Your task to perform on an android device: Open privacy settings Image 0: 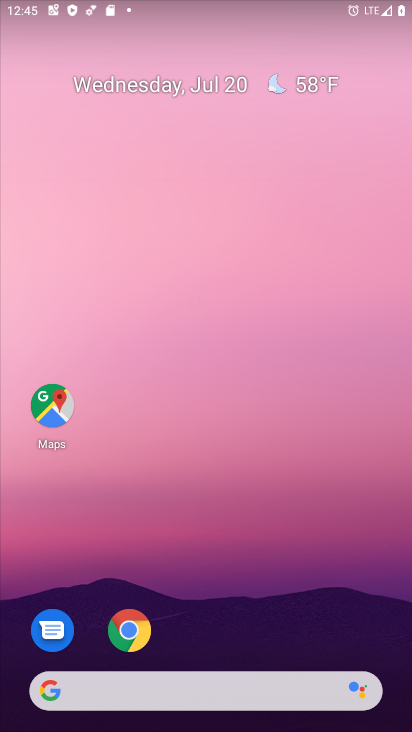
Step 0: drag from (260, 669) to (276, 252)
Your task to perform on an android device: Open privacy settings Image 1: 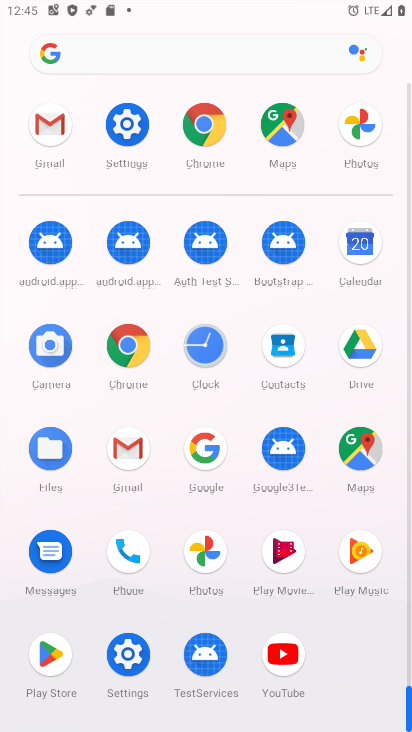
Step 1: click (126, 129)
Your task to perform on an android device: Open privacy settings Image 2: 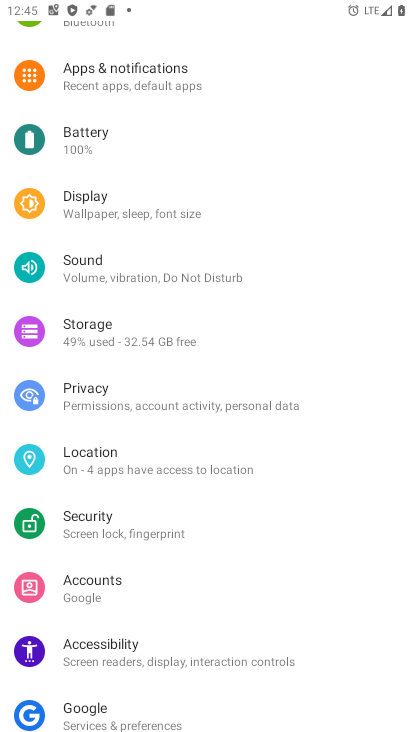
Step 2: drag from (147, 428) to (169, 229)
Your task to perform on an android device: Open privacy settings Image 3: 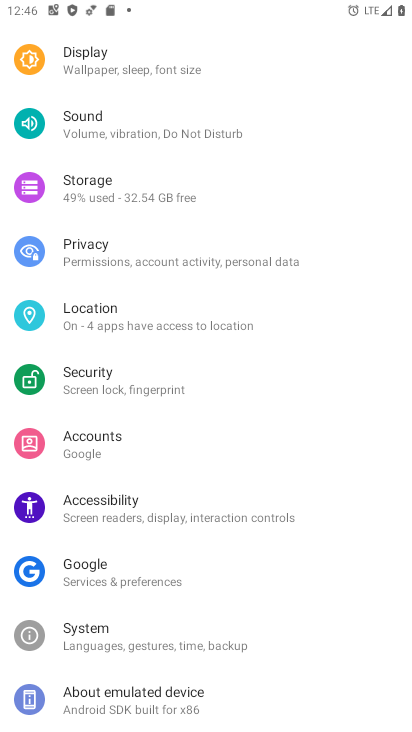
Step 3: click (175, 269)
Your task to perform on an android device: Open privacy settings Image 4: 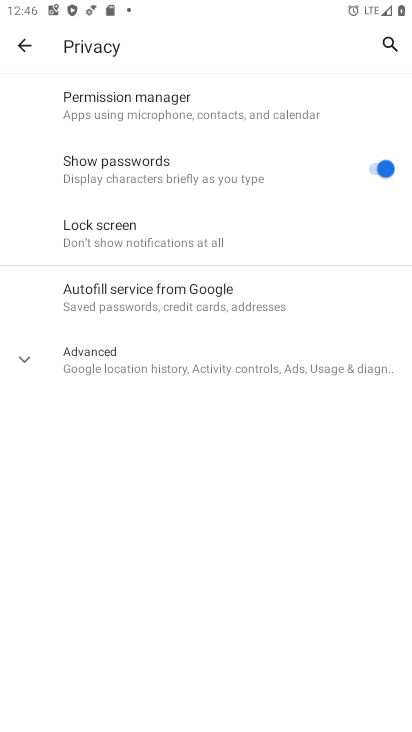
Step 4: task complete